Your task to perform on an android device: Is it going to rain tomorrow? Image 0: 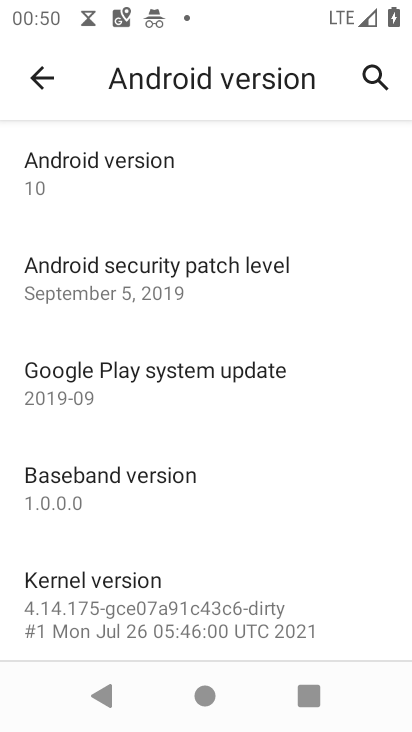
Step 0: press home button
Your task to perform on an android device: Is it going to rain tomorrow? Image 1: 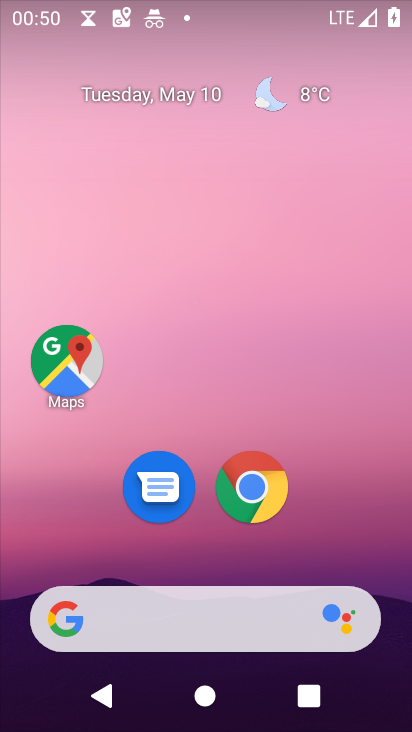
Step 1: click (307, 89)
Your task to perform on an android device: Is it going to rain tomorrow? Image 2: 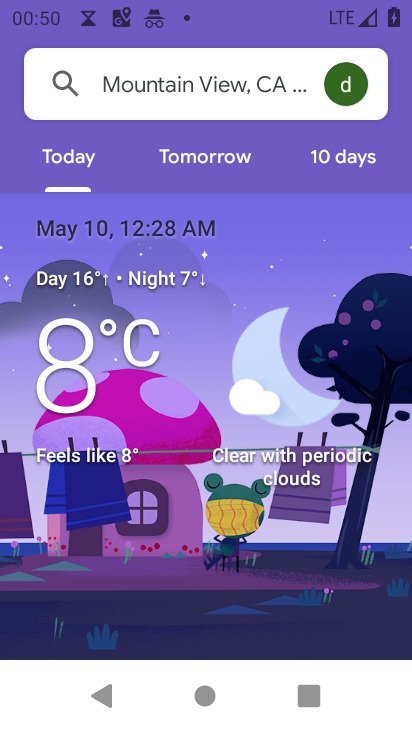
Step 2: click (211, 159)
Your task to perform on an android device: Is it going to rain tomorrow? Image 3: 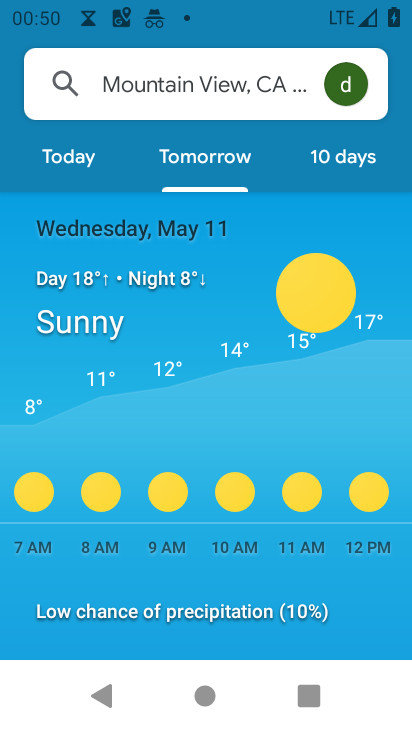
Step 3: task complete